Your task to perform on an android device: Go to sound settings Image 0: 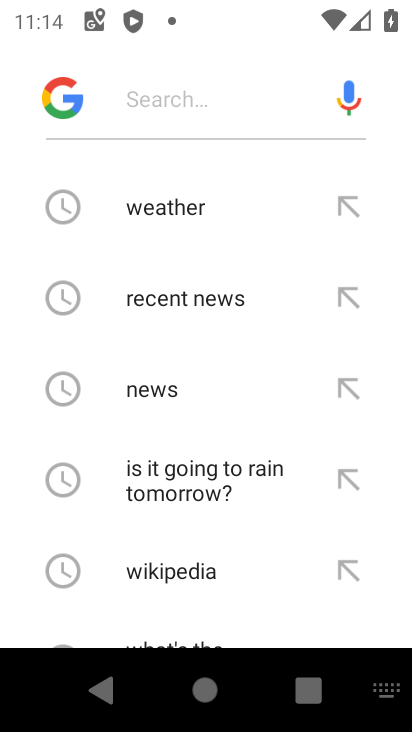
Step 0: press home button
Your task to perform on an android device: Go to sound settings Image 1: 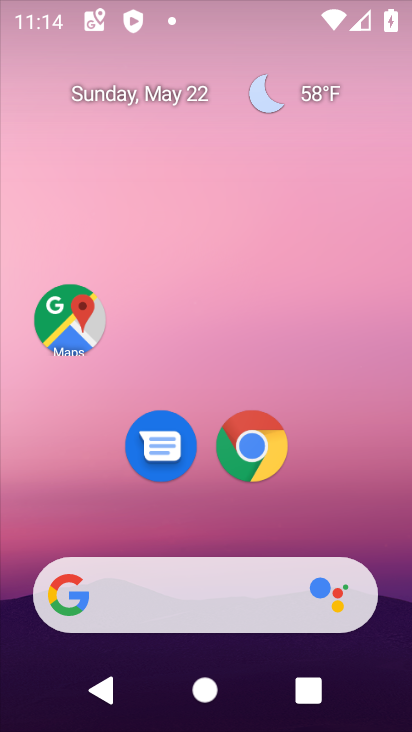
Step 1: drag from (157, 533) to (213, 0)
Your task to perform on an android device: Go to sound settings Image 2: 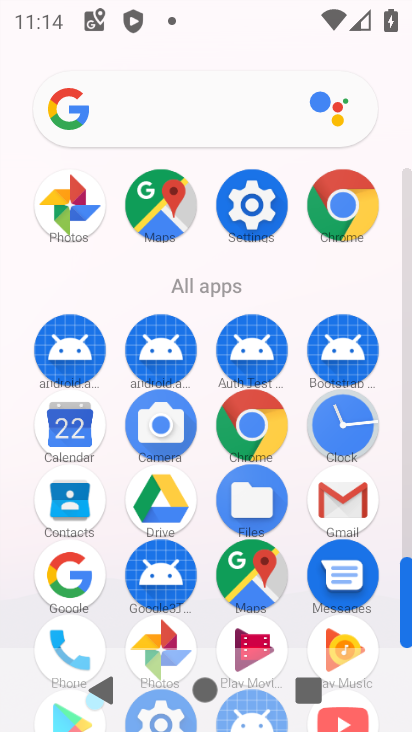
Step 2: click (260, 187)
Your task to perform on an android device: Go to sound settings Image 3: 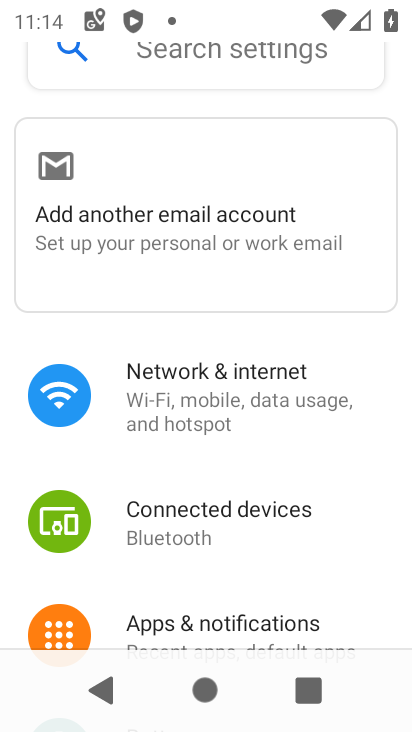
Step 3: drag from (218, 450) to (250, 74)
Your task to perform on an android device: Go to sound settings Image 4: 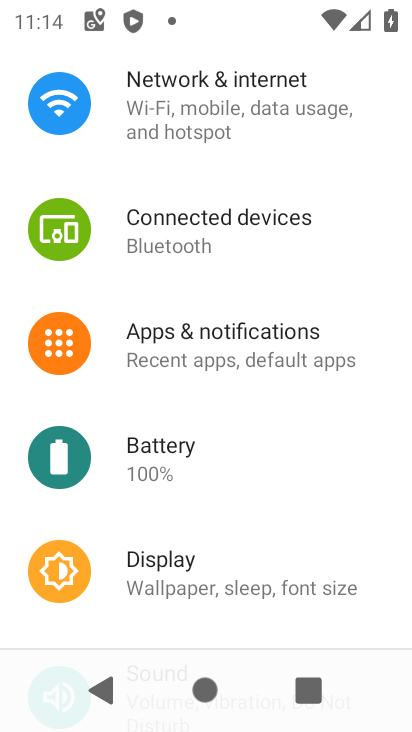
Step 4: drag from (186, 507) to (237, 143)
Your task to perform on an android device: Go to sound settings Image 5: 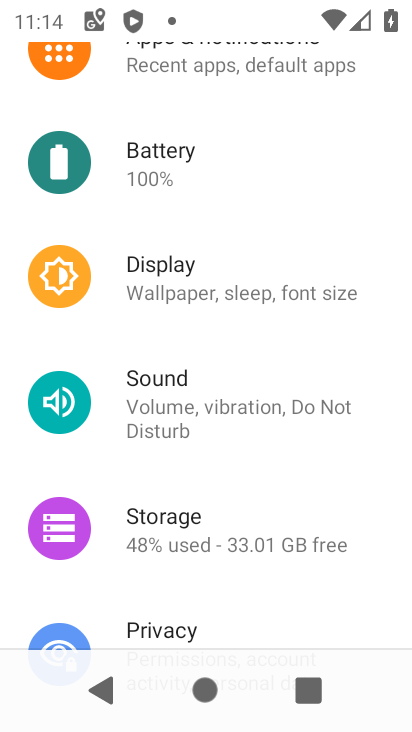
Step 5: click (188, 401)
Your task to perform on an android device: Go to sound settings Image 6: 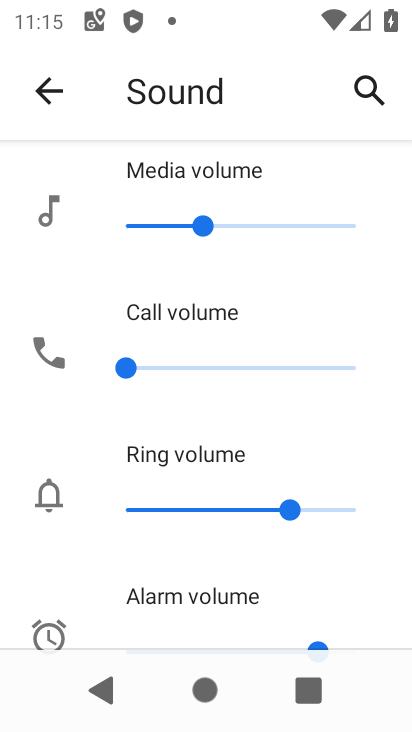
Step 6: task complete